Your task to perform on an android device: toggle show notifications on the lock screen Image 0: 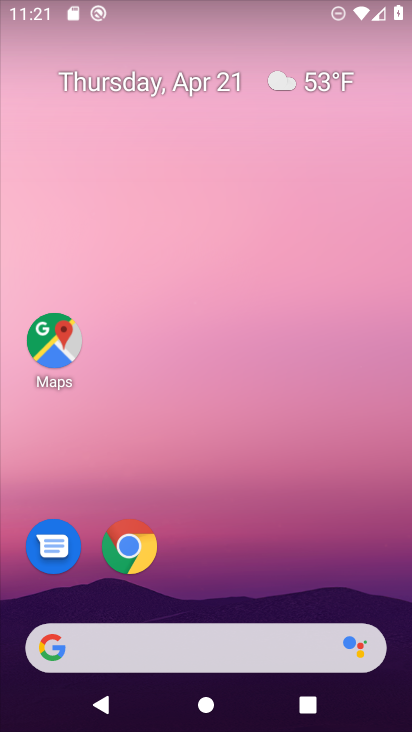
Step 0: drag from (219, 621) to (250, 162)
Your task to perform on an android device: toggle show notifications on the lock screen Image 1: 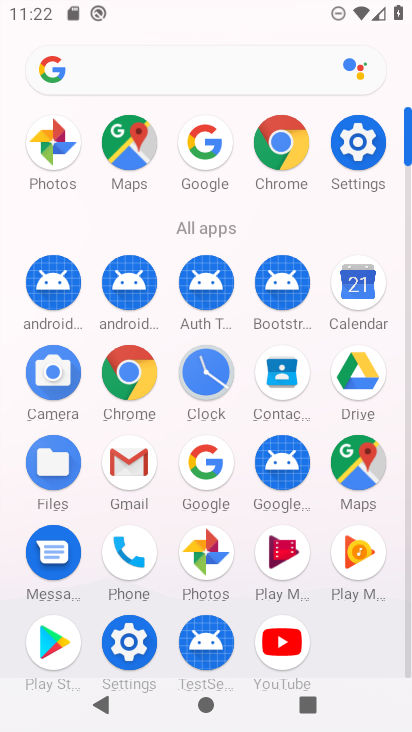
Step 1: click (376, 134)
Your task to perform on an android device: toggle show notifications on the lock screen Image 2: 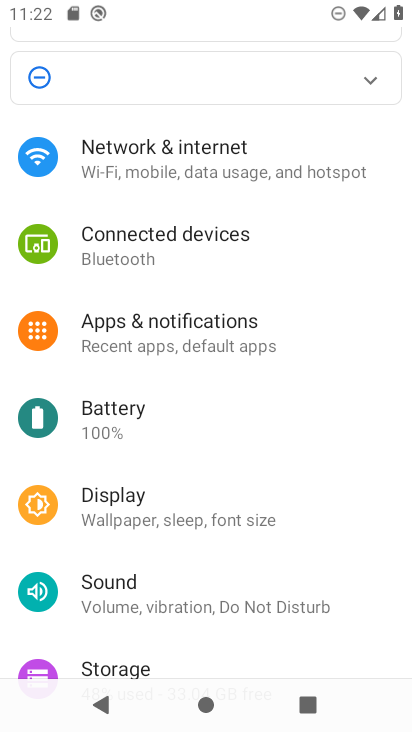
Step 2: drag from (209, 629) to (224, 249)
Your task to perform on an android device: toggle show notifications on the lock screen Image 3: 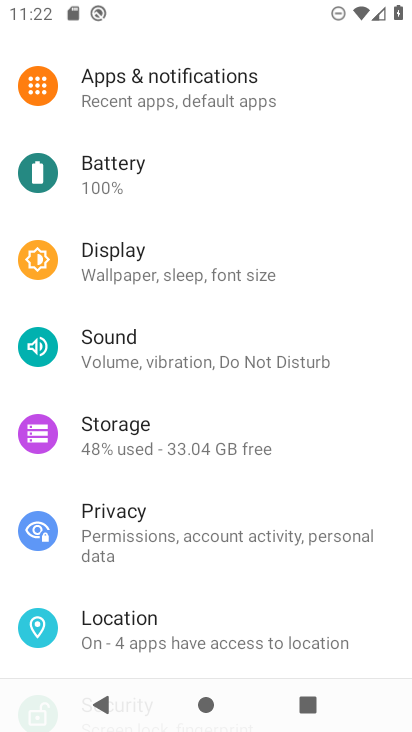
Step 3: click (121, 520)
Your task to perform on an android device: toggle show notifications on the lock screen Image 4: 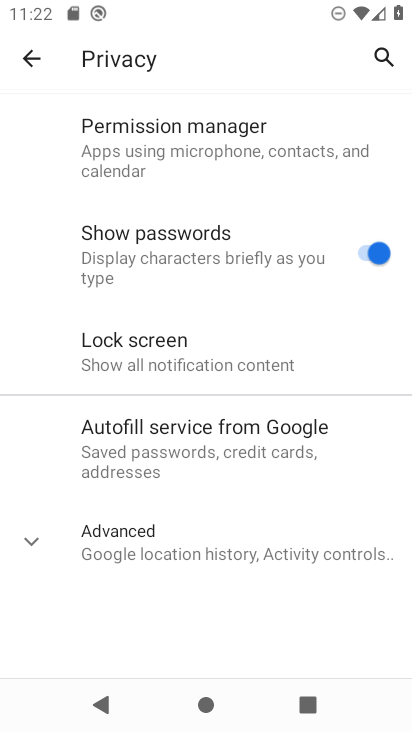
Step 4: click (158, 365)
Your task to perform on an android device: toggle show notifications on the lock screen Image 5: 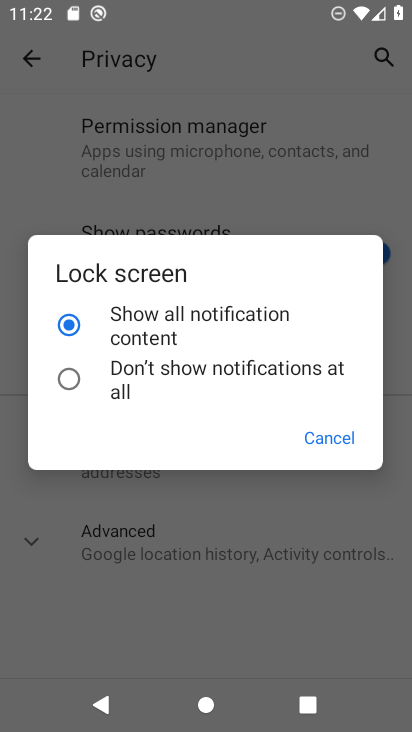
Step 5: click (60, 379)
Your task to perform on an android device: toggle show notifications on the lock screen Image 6: 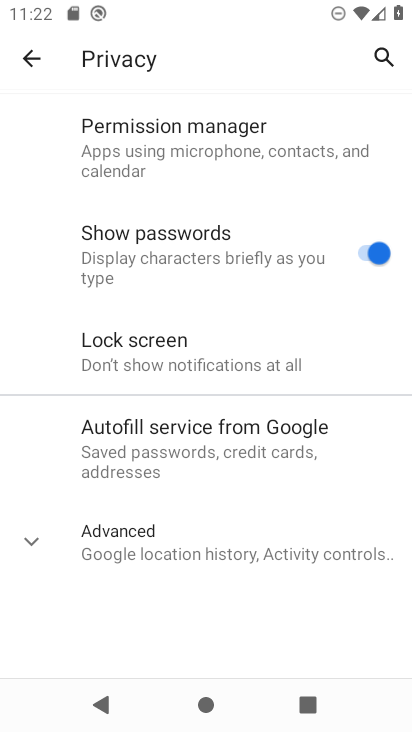
Step 6: task complete